Your task to perform on an android device: find which apps use the phone's location Image 0: 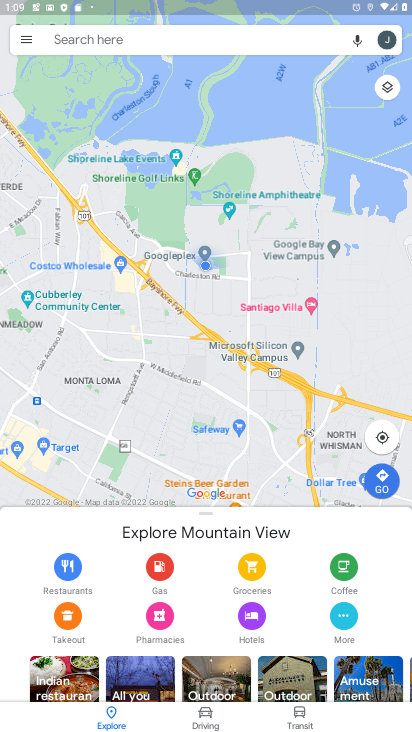
Step 0: press home button
Your task to perform on an android device: find which apps use the phone's location Image 1: 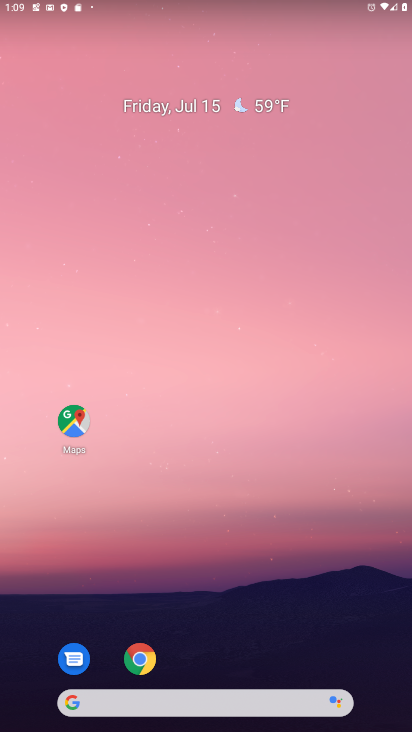
Step 1: drag from (255, 699) to (272, 163)
Your task to perform on an android device: find which apps use the phone's location Image 2: 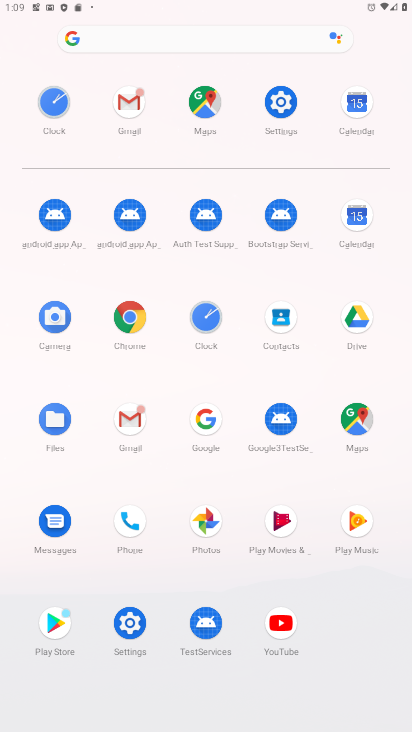
Step 2: click (130, 623)
Your task to perform on an android device: find which apps use the phone's location Image 3: 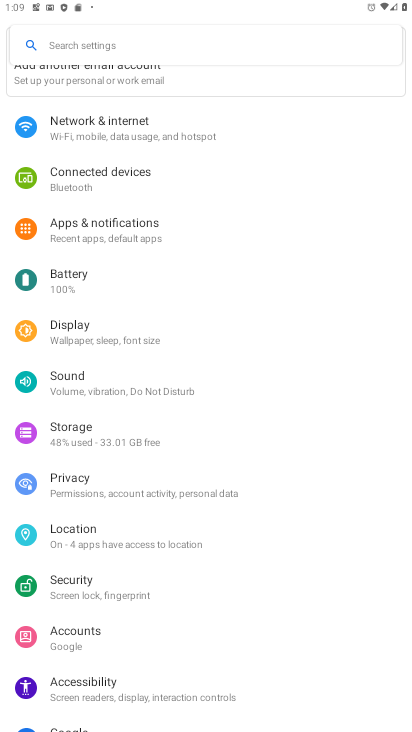
Step 3: click (71, 537)
Your task to perform on an android device: find which apps use the phone's location Image 4: 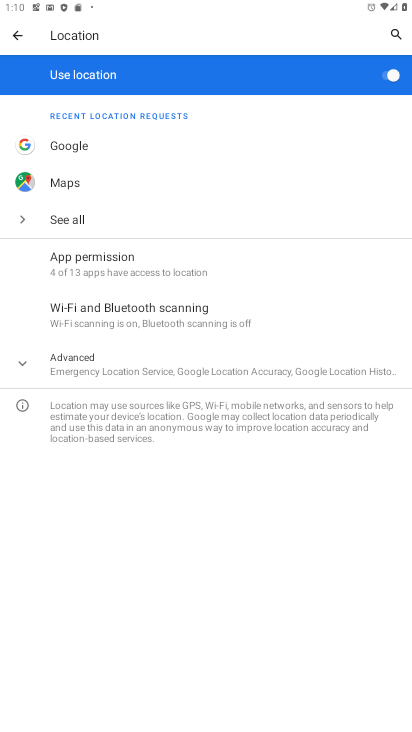
Step 4: click (96, 256)
Your task to perform on an android device: find which apps use the phone's location Image 5: 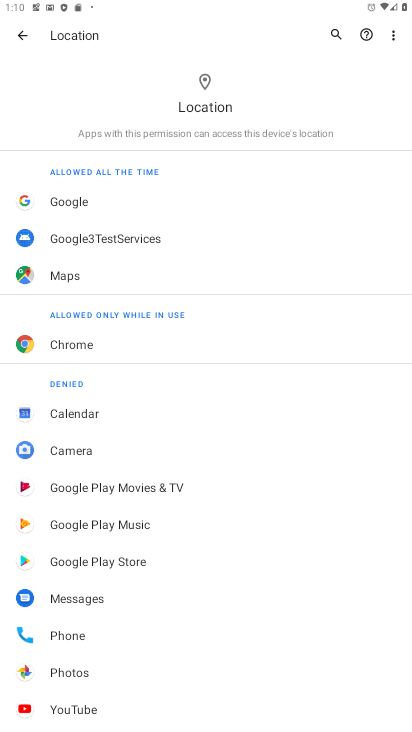
Step 5: task complete